Your task to perform on an android device: Open Android settings Image 0: 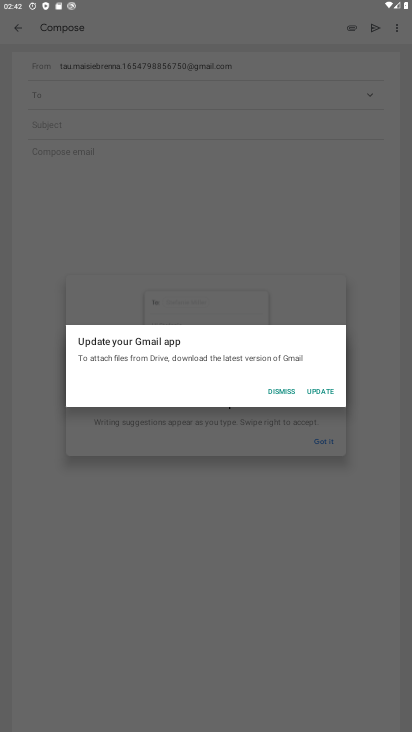
Step 0: press home button
Your task to perform on an android device: Open Android settings Image 1: 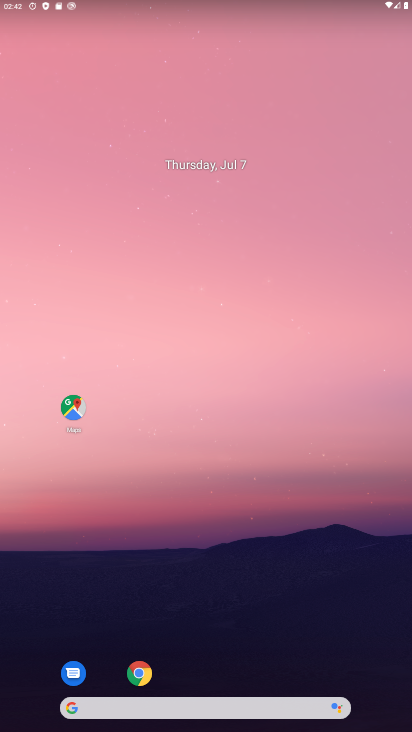
Step 1: drag from (227, 658) to (232, 123)
Your task to perform on an android device: Open Android settings Image 2: 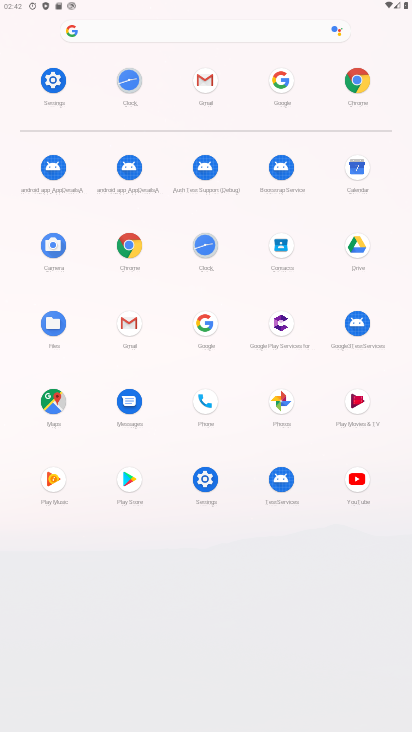
Step 2: click (62, 87)
Your task to perform on an android device: Open Android settings Image 3: 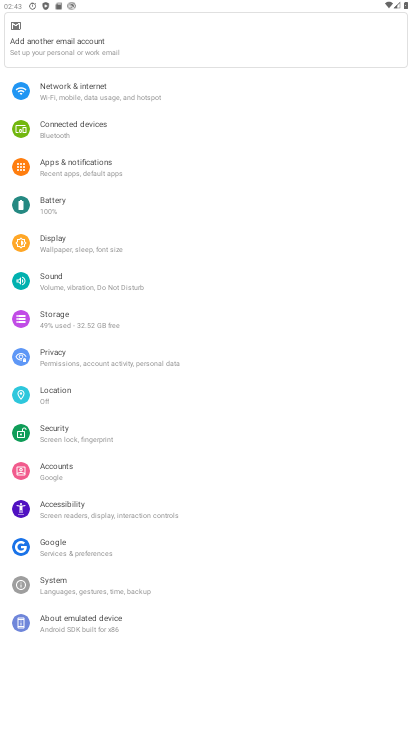
Step 3: task complete